Your task to perform on an android device: open a bookmark in the chrome app Image 0: 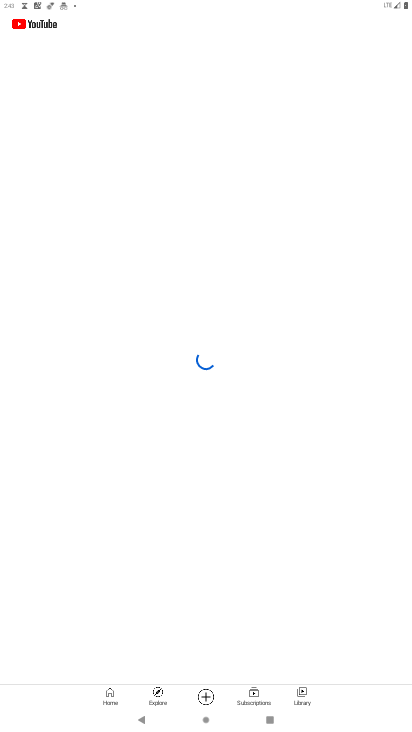
Step 0: press home button
Your task to perform on an android device: open a bookmark in the chrome app Image 1: 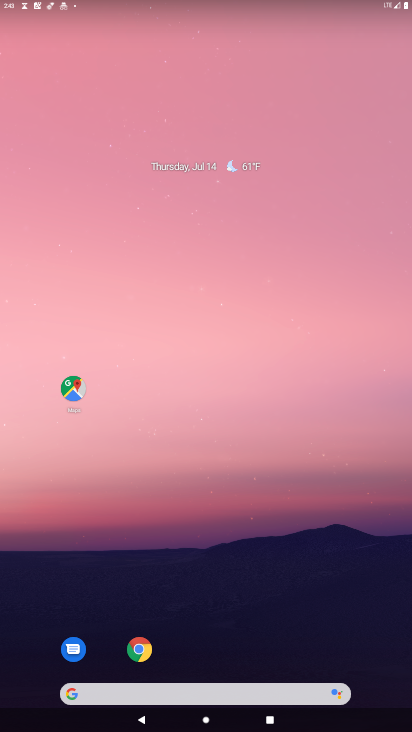
Step 1: drag from (270, 661) to (323, 11)
Your task to perform on an android device: open a bookmark in the chrome app Image 2: 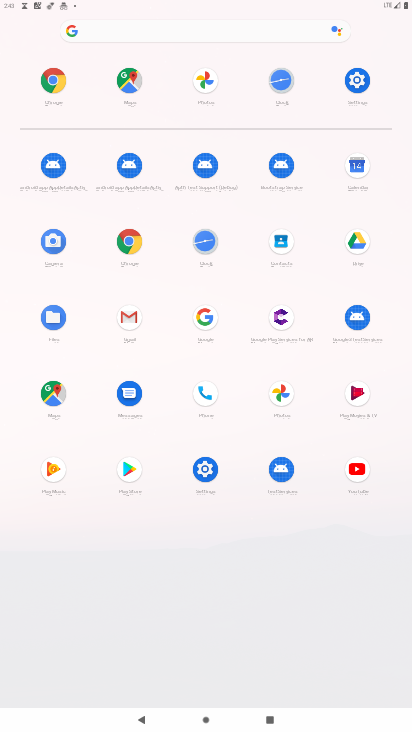
Step 2: click (136, 248)
Your task to perform on an android device: open a bookmark in the chrome app Image 3: 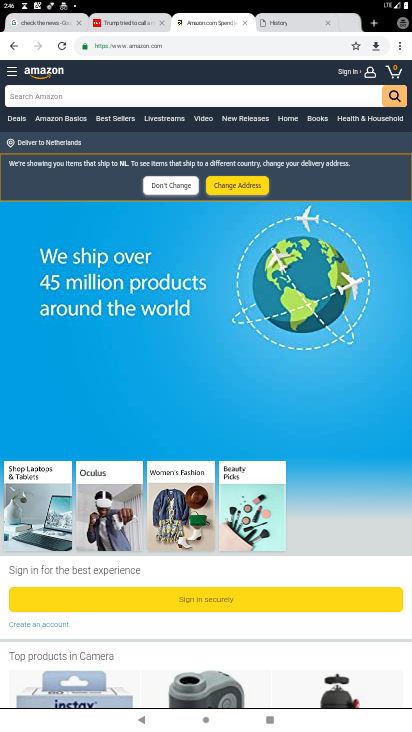
Step 3: drag from (400, 44) to (334, 110)
Your task to perform on an android device: open a bookmark in the chrome app Image 4: 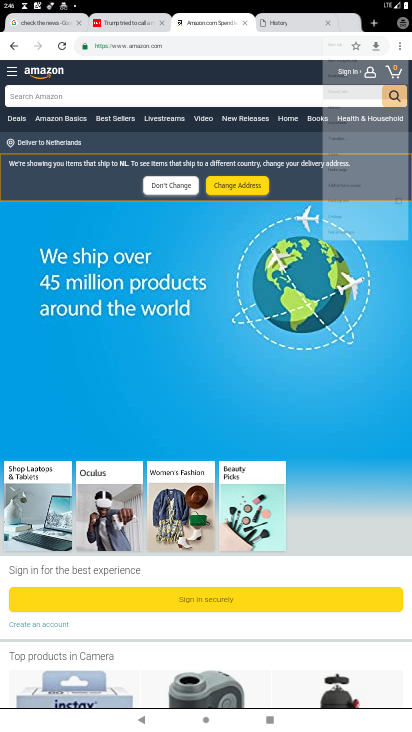
Step 4: click (335, 94)
Your task to perform on an android device: open a bookmark in the chrome app Image 5: 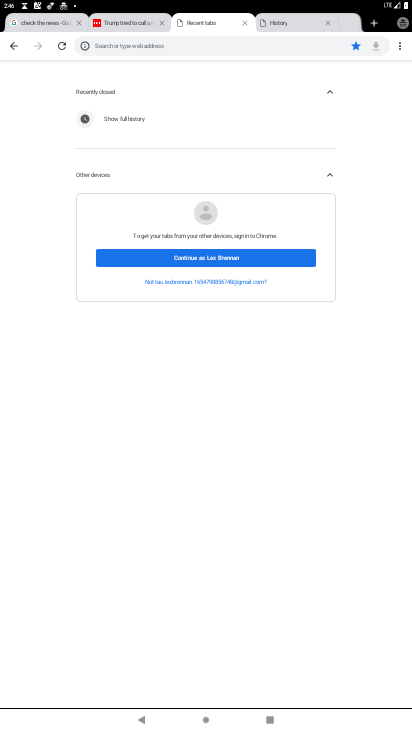
Step 5: task complete